Your task to perform on an android device: turn on airplane mode Image 0: 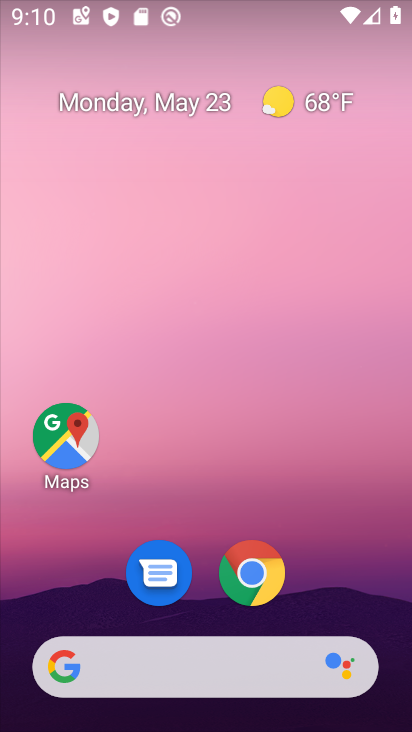
Step 0: drag from (276, 709) to (376, 20)
Your task to perform on an android device: turn on airplane mode Image 1: 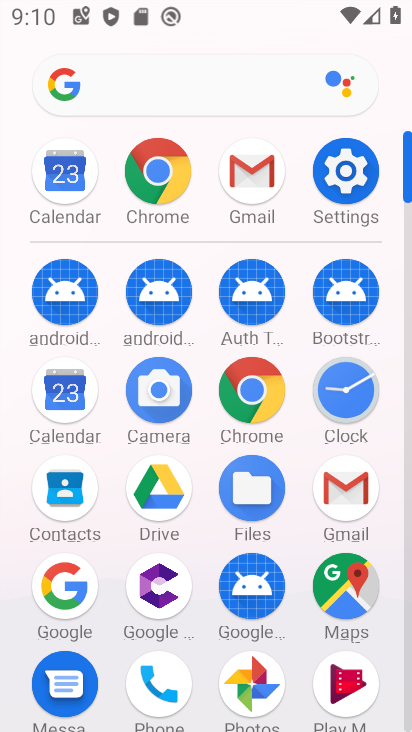
Step 1: click (336, 189)
Your task to perform on an android device: turn on airplane mode Image 2: 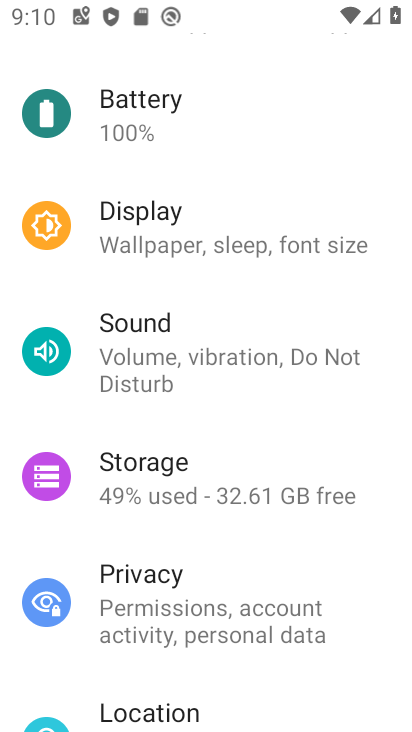
Step 2: drag from (239, 162) to (215, 577)
Your task to perform on an android device: turn on airplane mode Image 3: 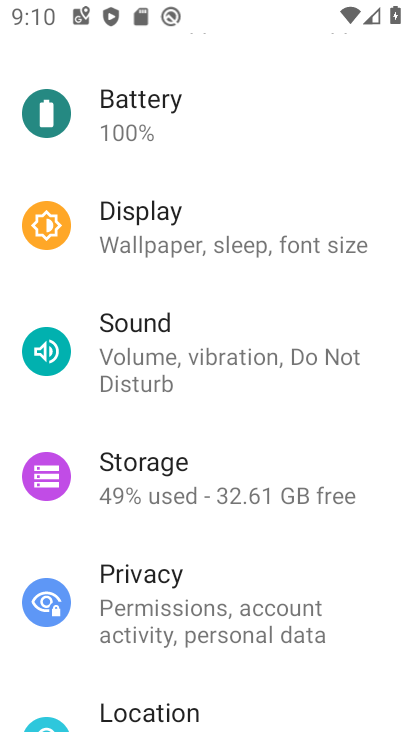
Step 3: drag from (190, 255) to (175, 680)
Your task to perform on an android device: turn on airplane mode Image 4: 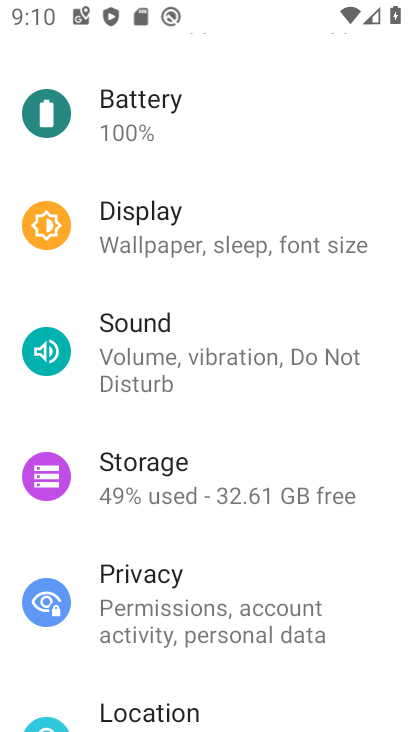
Step 4: drag from (183, 358) to (191, 709)
Your task to perform on an android device: turn on airplane mode Image 5: 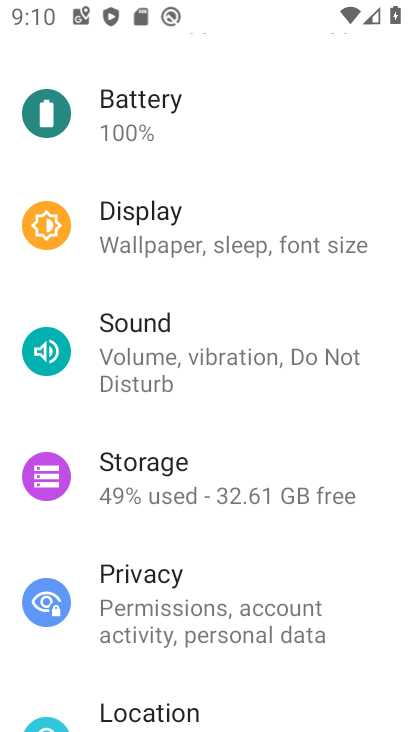
Step 5: drag from (175, 229) to (188, 637)
Your task to perform on an android device: turn on airplane mode Image 6: 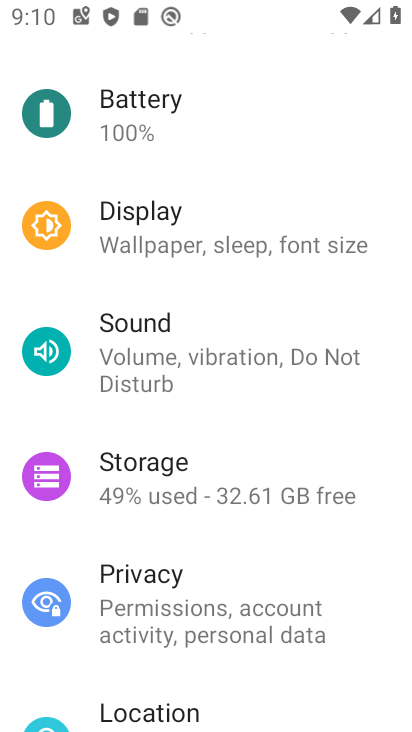
Step 6: drag from (182, 259) to (182, 725)
Your task to perform on an android device: turn on airplane mode Image 7: 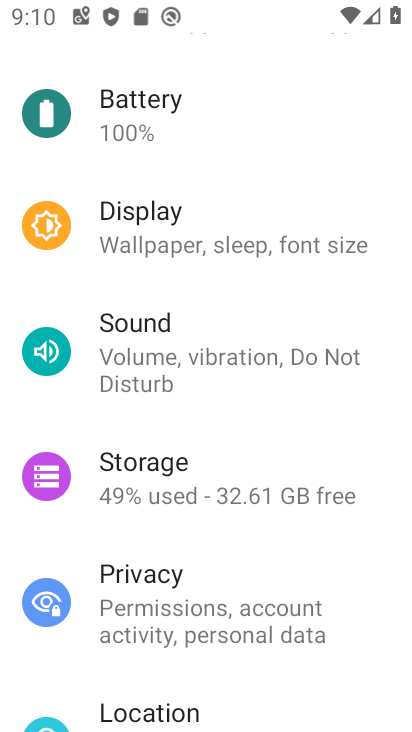
Step 7: drag from (321, 216) to (287, 606)
Your task to perform on an android device: turn on airplane mode Image 8: 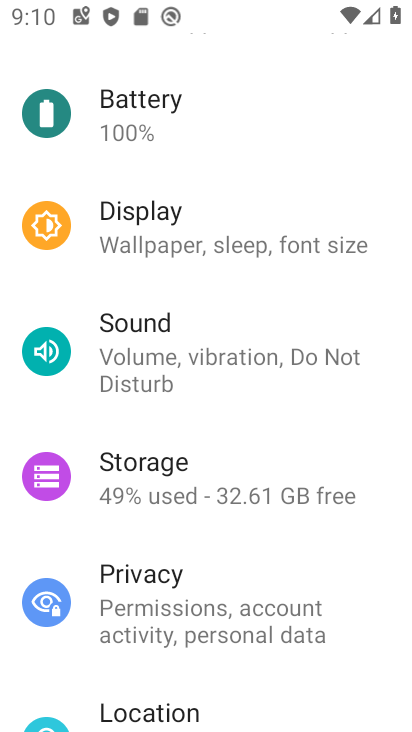
Step 8: drag from (256, 304) to (235, 671)
Your task to perform on an android device: turn on airplane mode Image 9: 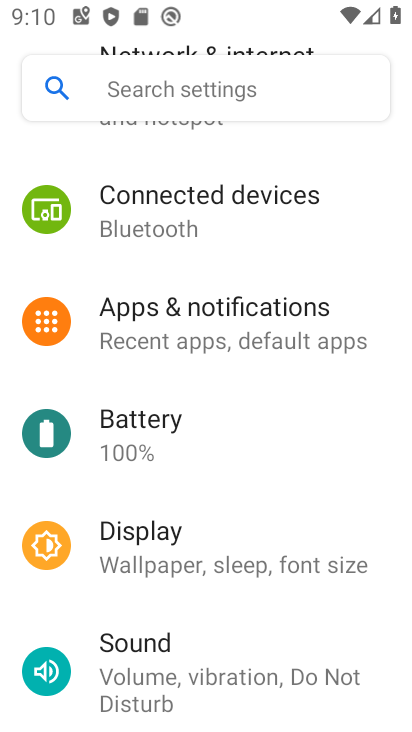
Step 9: drag from (247, 366) to (239, 616)
Your task to perform on an android device: turn on airplane mode Image 10: 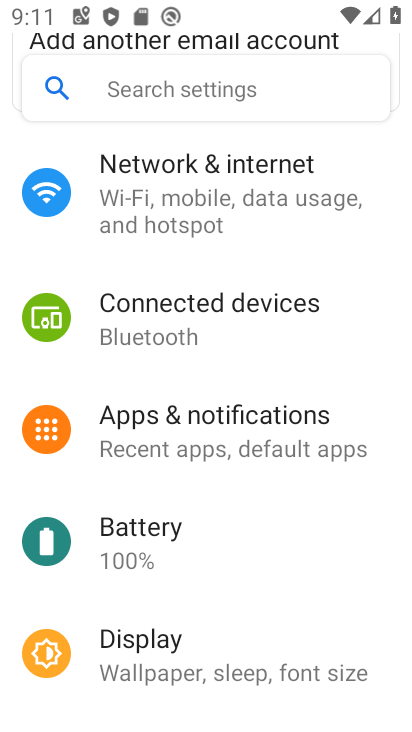
Step 10: drag from (245, 269) to (245, 669)
Your task to perform on an android device: turn on airplane mode Image 11: 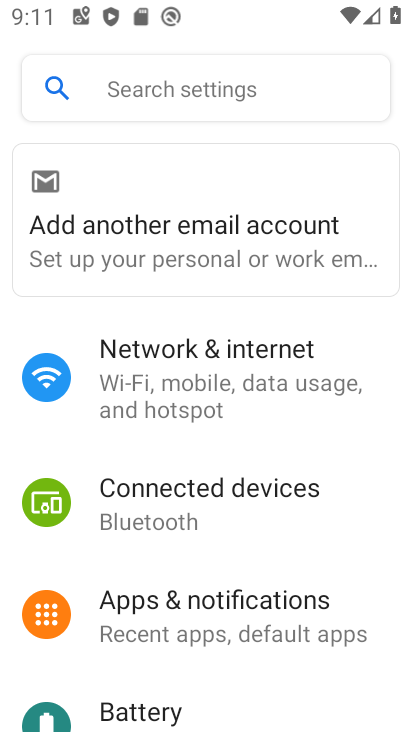
Step 11: click (242, 396)
Your task to perform on an android device: turn on airplane mode Image 12: 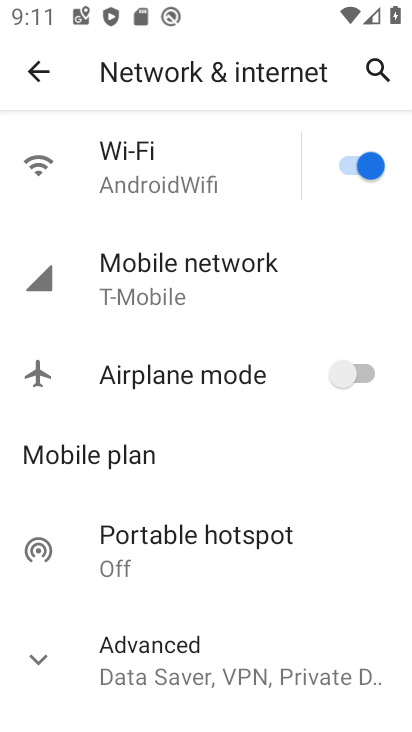
Step 12: click (242, 386)
Your task to perform on an android device: turn on airplane mode Image 13: 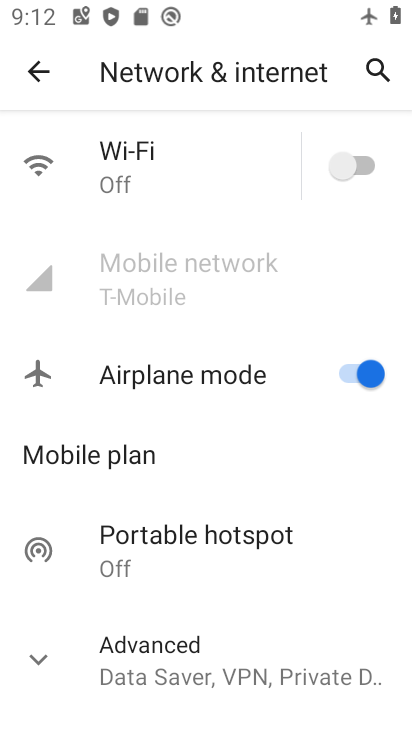
Step 13: task complete